Your task to perform on an android device: open app "Clock" Image 0: 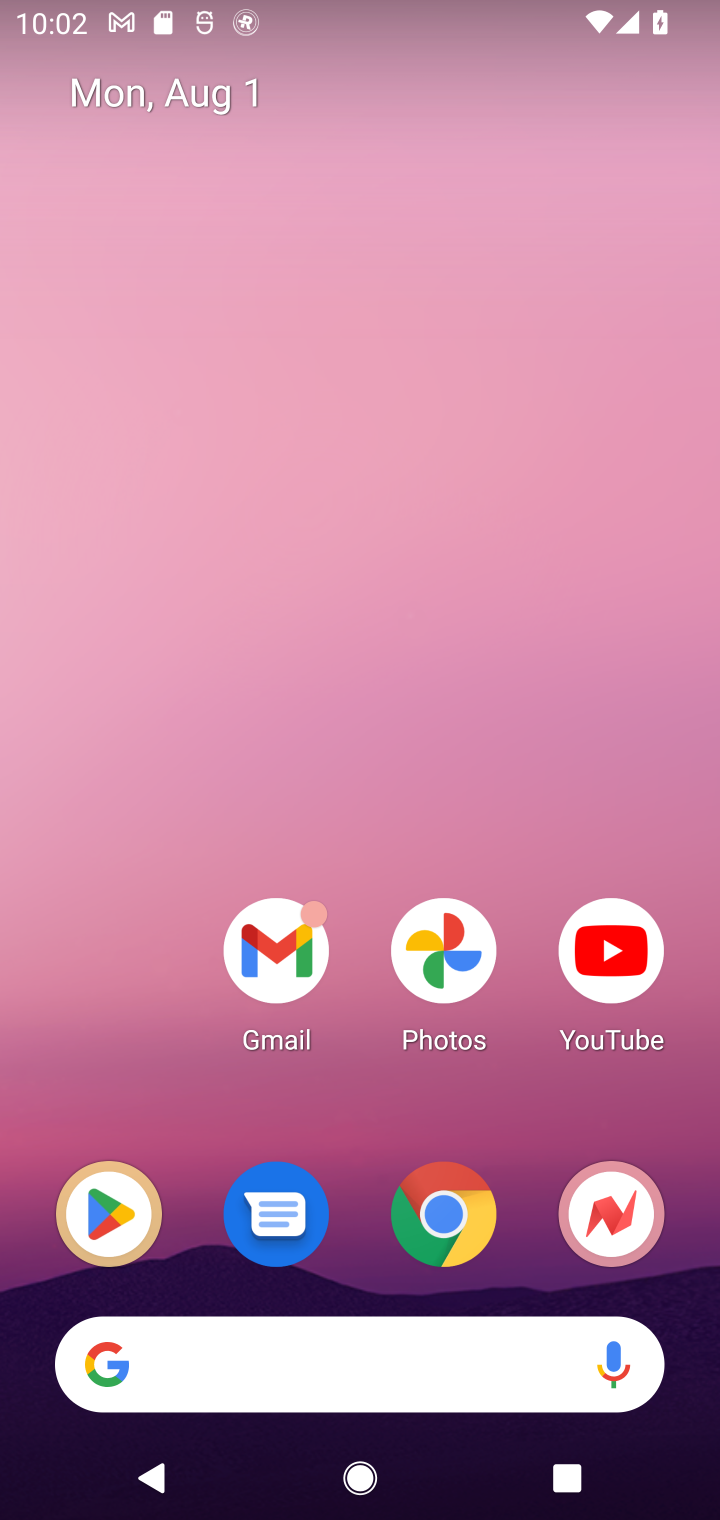
Step 0: press home button
Your task to perform on an android device: open app "Clock" Image 1: 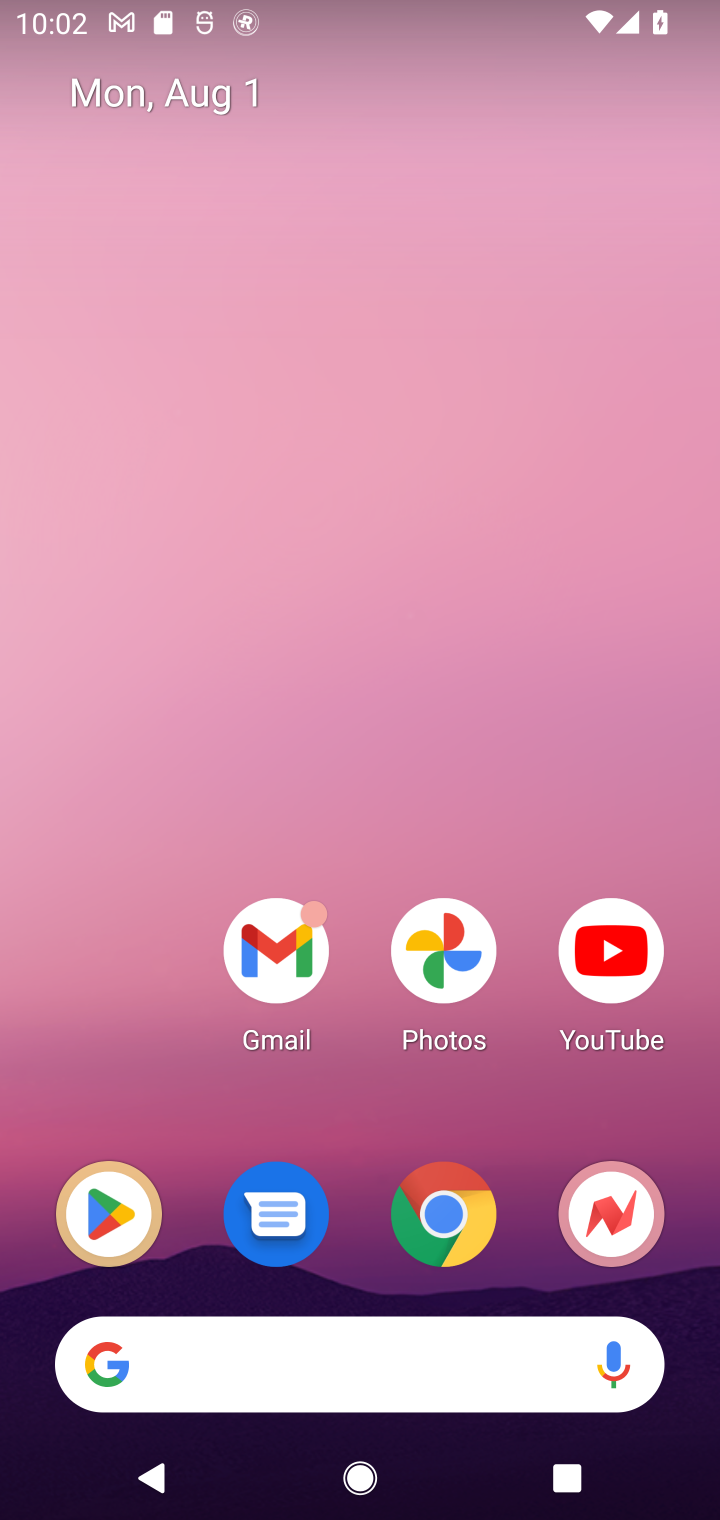
Step 1: click (115, 1232)
Your task to perform on an android device: open app "Clock" Image 2: 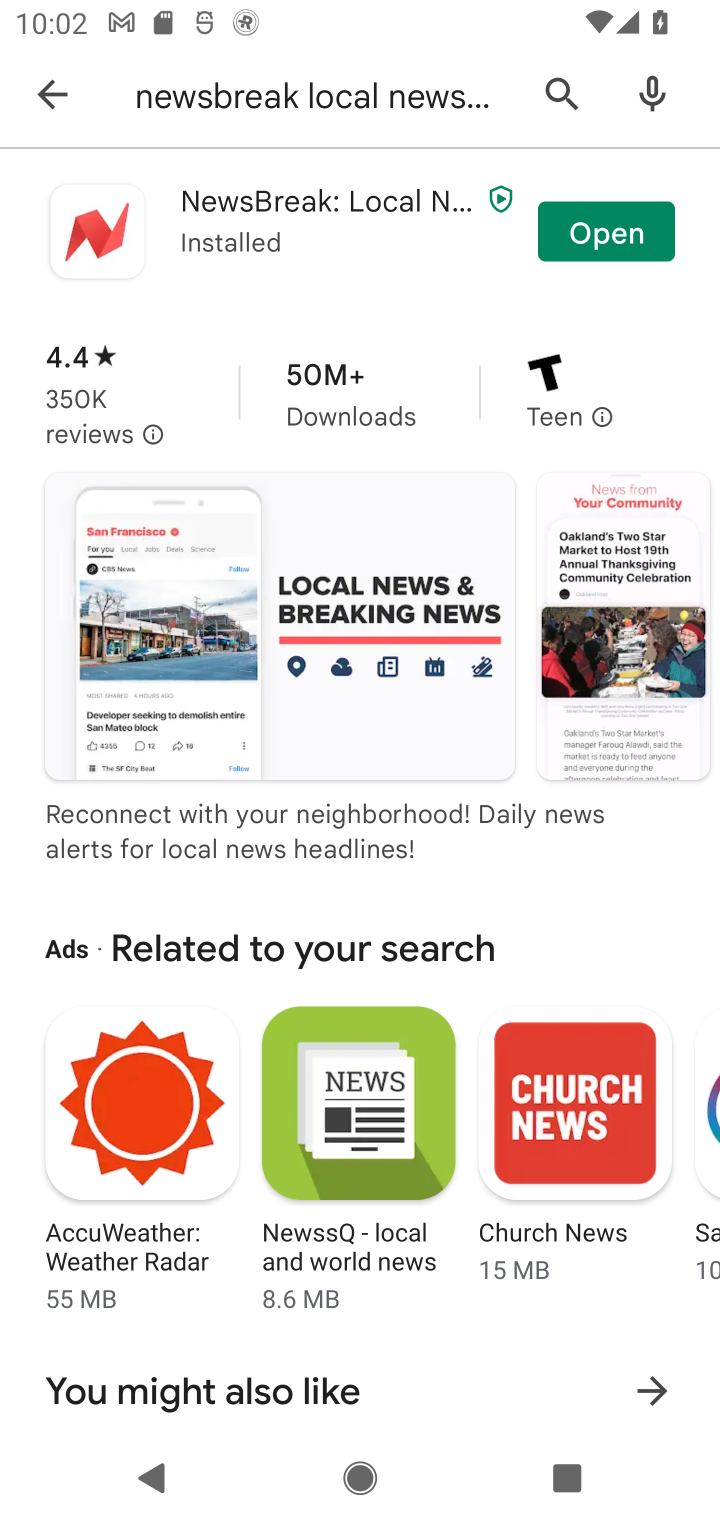
Step 2: click (556, 90)
Your task to perform on an android device: open app "Clock" Image 3: 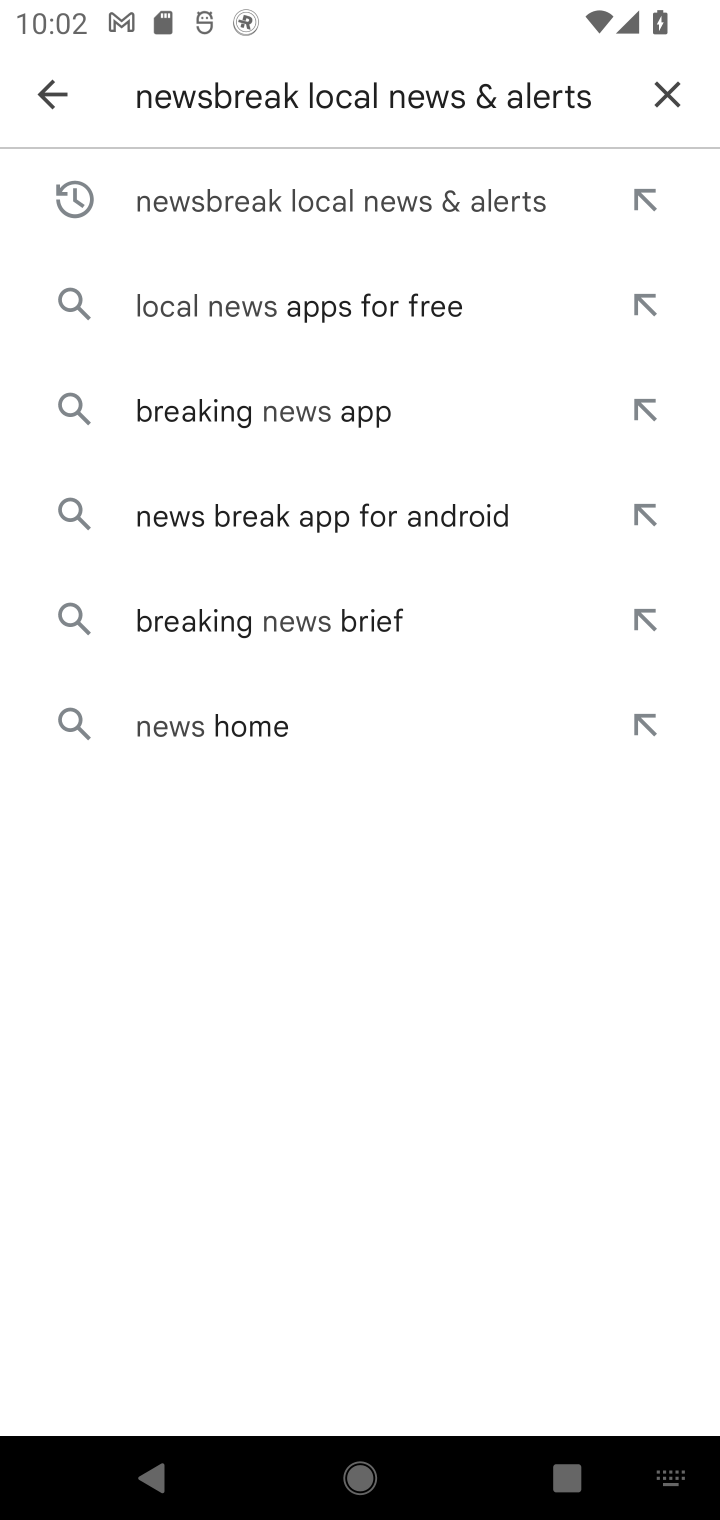
Step 3: click (657, 86)
Your task to perform on an android device: open app "Clock" Image 4: 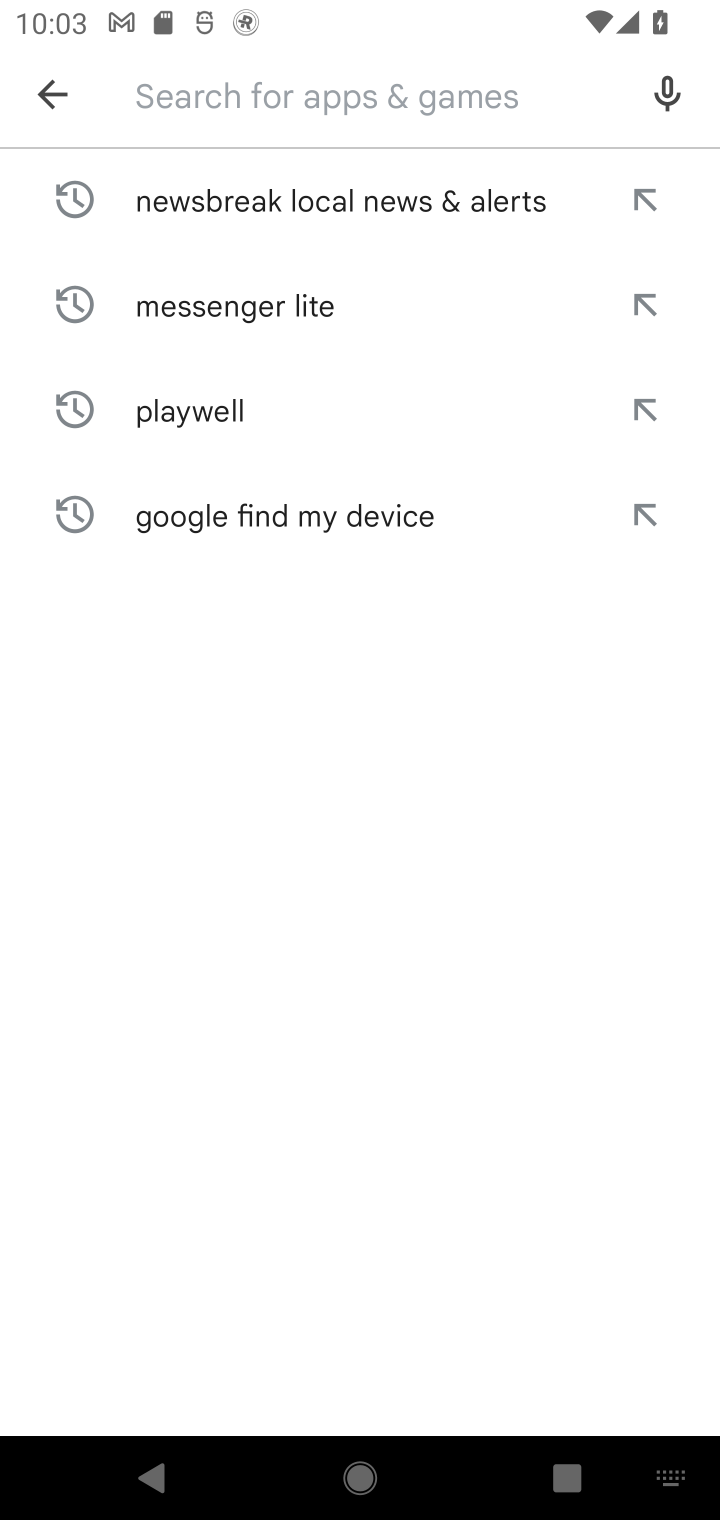
Step 4: type "Clock"
Your task to perform on an android device: open app "Clock" Image 5: 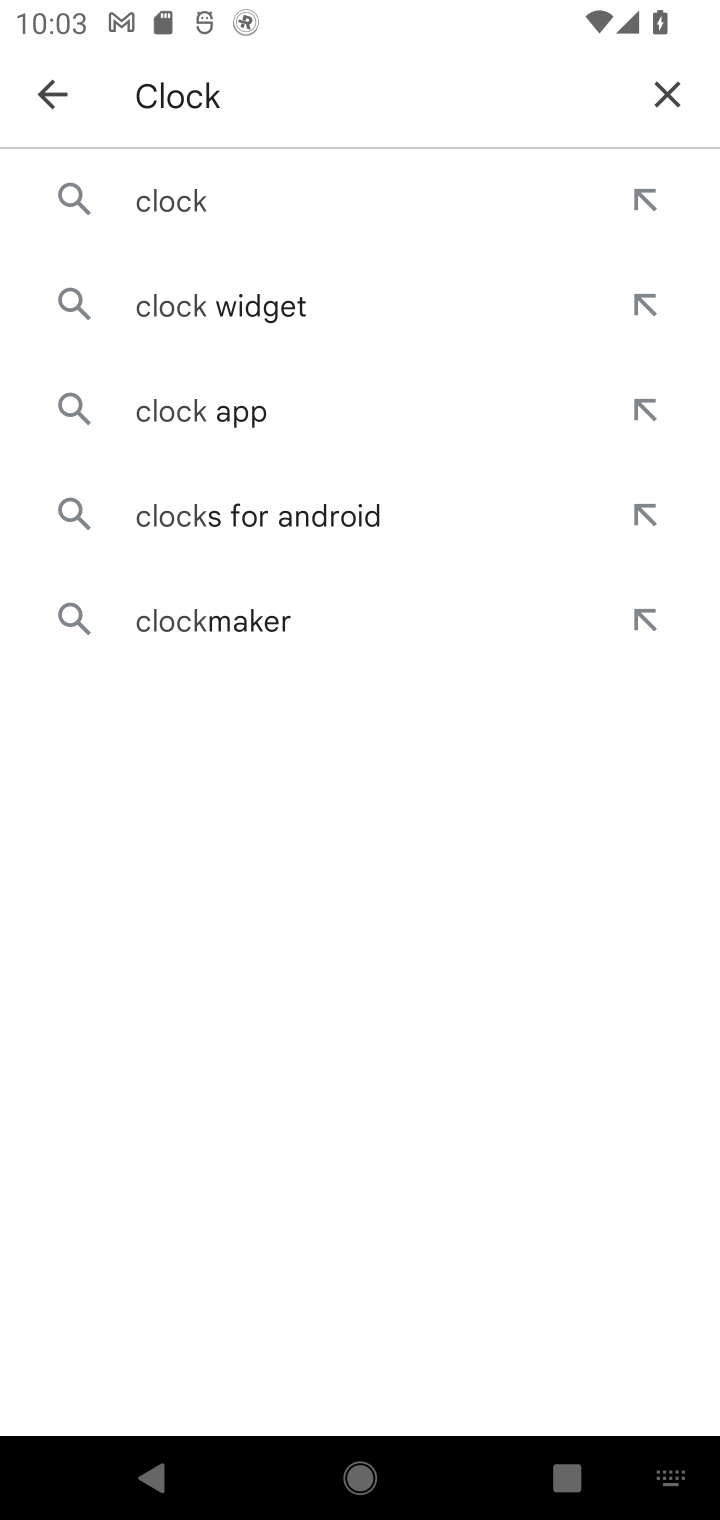
Step 5: click (187, 200)
Your task to perform on an android device: open app "Clock" Image 6: 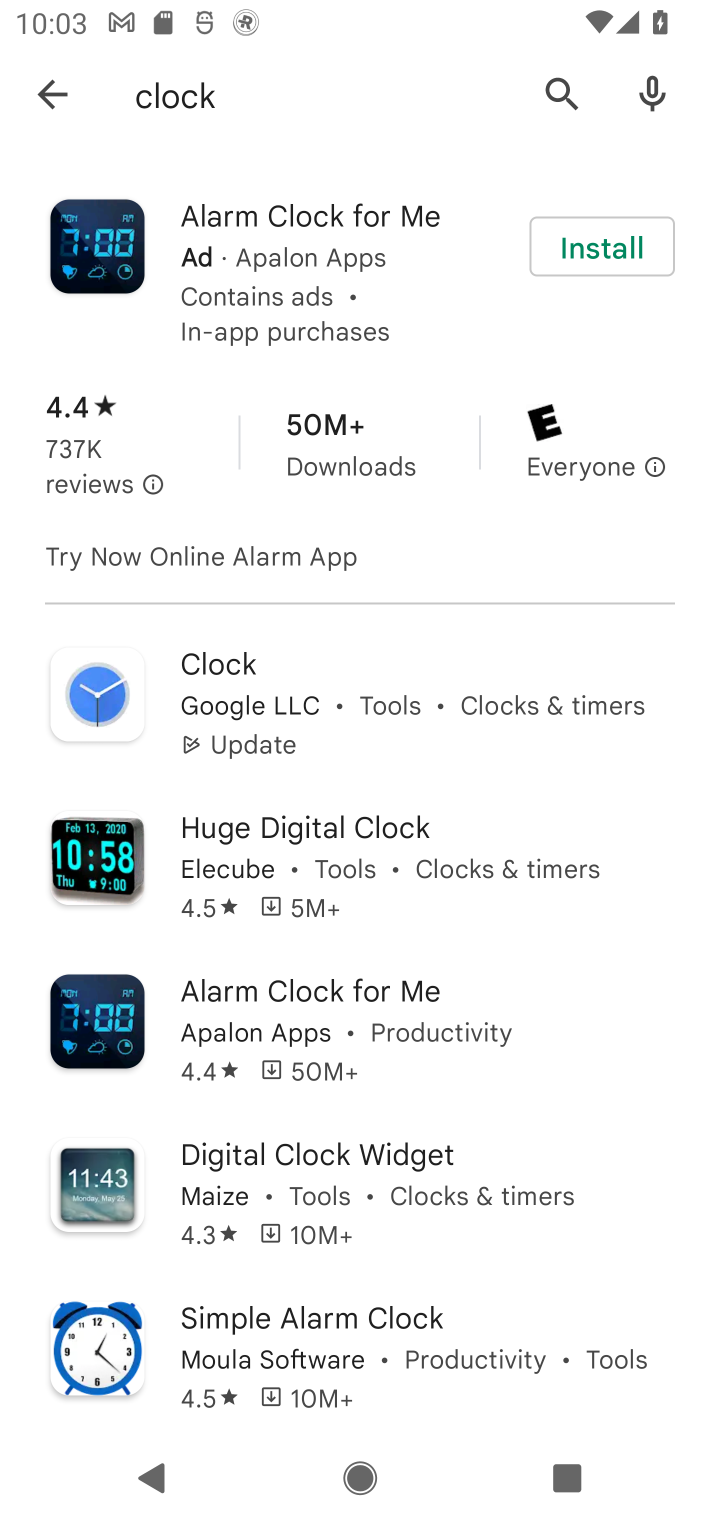
Step 6: click (301, 692)
Your task to perform on an android device: open app "Clock" Image 7: 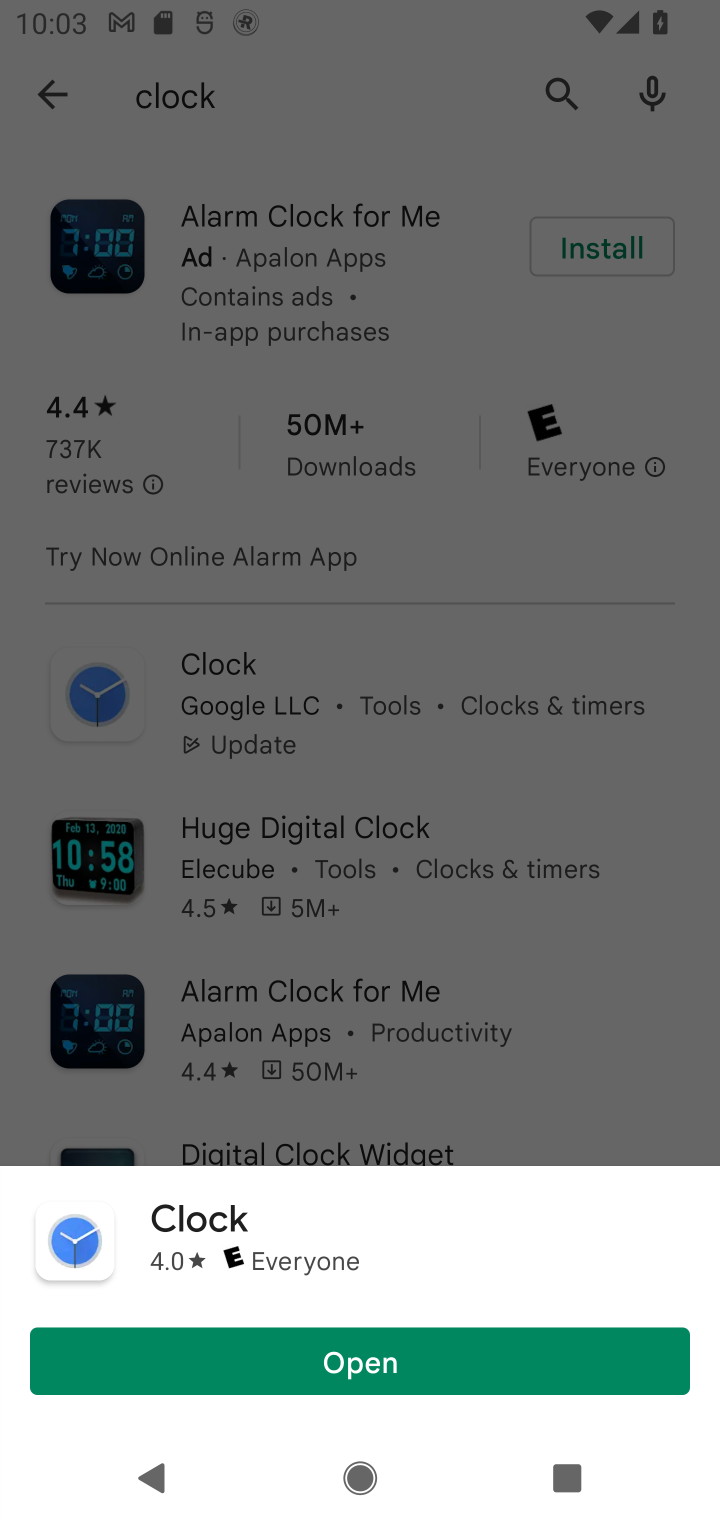
Step 7: click (342, 1371)
Your task to perform on an android device: open app "Clock" Image 8: 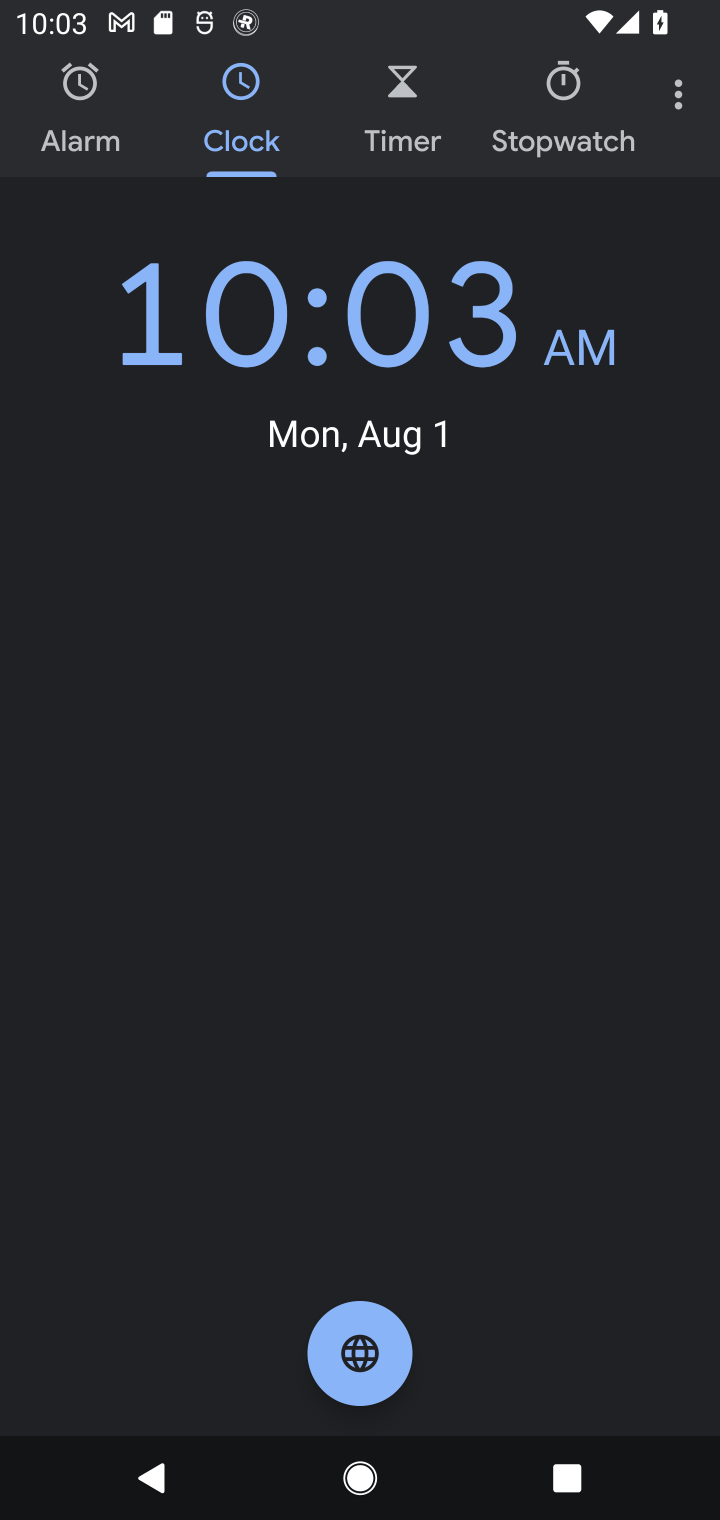
Step 8: task complete